Your task to perform on an android device: open app "Instagram" (install if not already installed) and enter user name: "nobler@yahoo.com" and password: "foraging" Image 0: 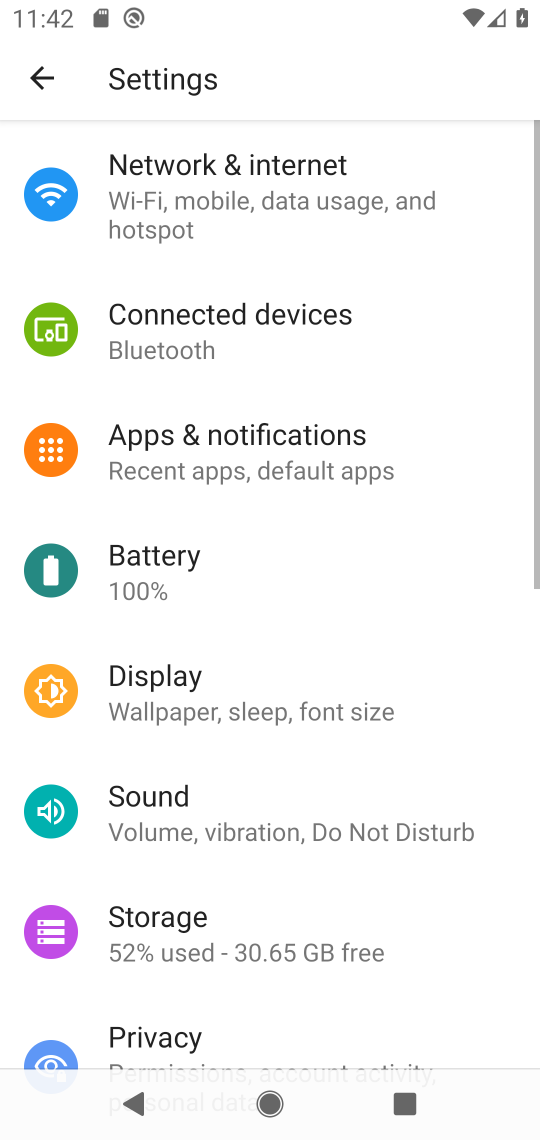
Step 0: click (261, 971)
Your task to perform on an android device: open app "Instagram" (install if not already installed) and enter user name: "nobler@yahoo.com" and password: "foraging" Image 1: 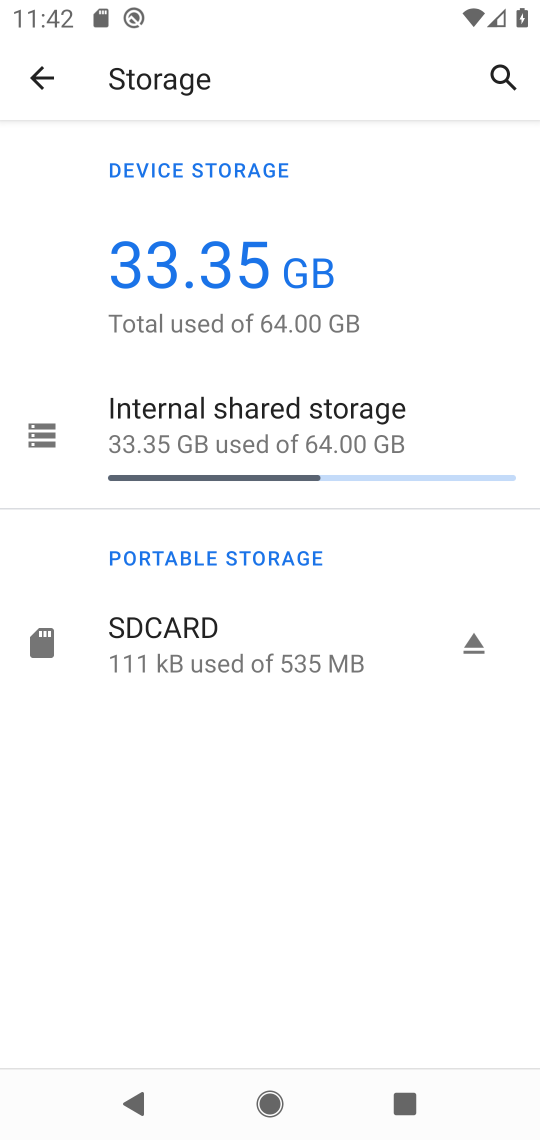
Step 1: press home button
Your task to perform on an android device: open app "Instagram" (install if not already installed) and enter user name: "nobler@yahoo.com" and password: "foraging" Image 2: 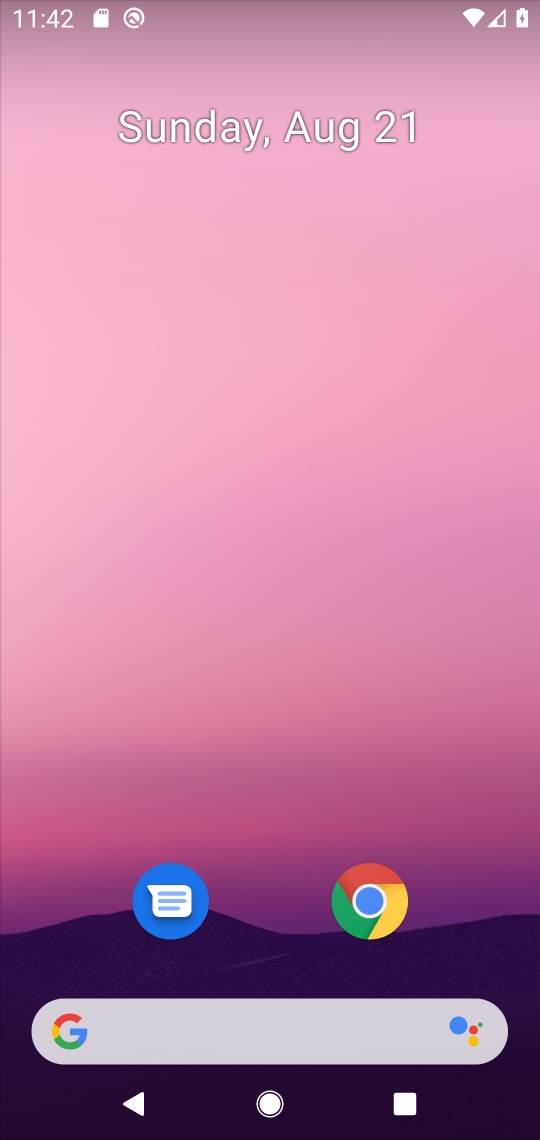
Step 2: drag from (250, 973) to (443, 47)
Your task to perform on an android device: open app "Instagram" (install if not already installed) and enter user name: "nobler@yahoo.com" and password: "foraging" Image 3: 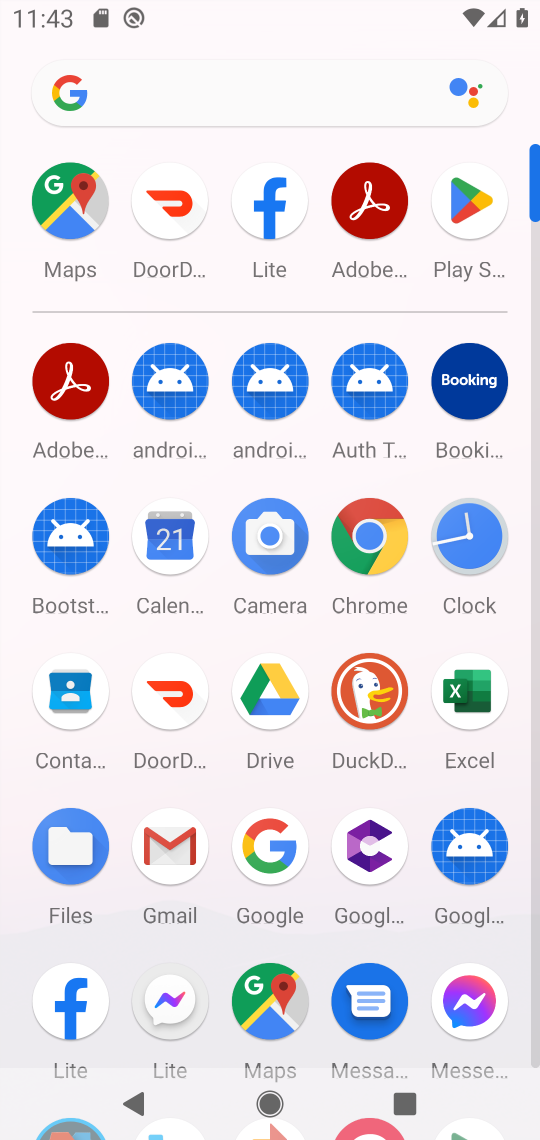
Step 3: click (490, 238)
Your task to perform on an android device: open app "Instagram" (install if not already installed) and enter user name: "nobler@yahoo.com" and password: "foraging" Image 4: 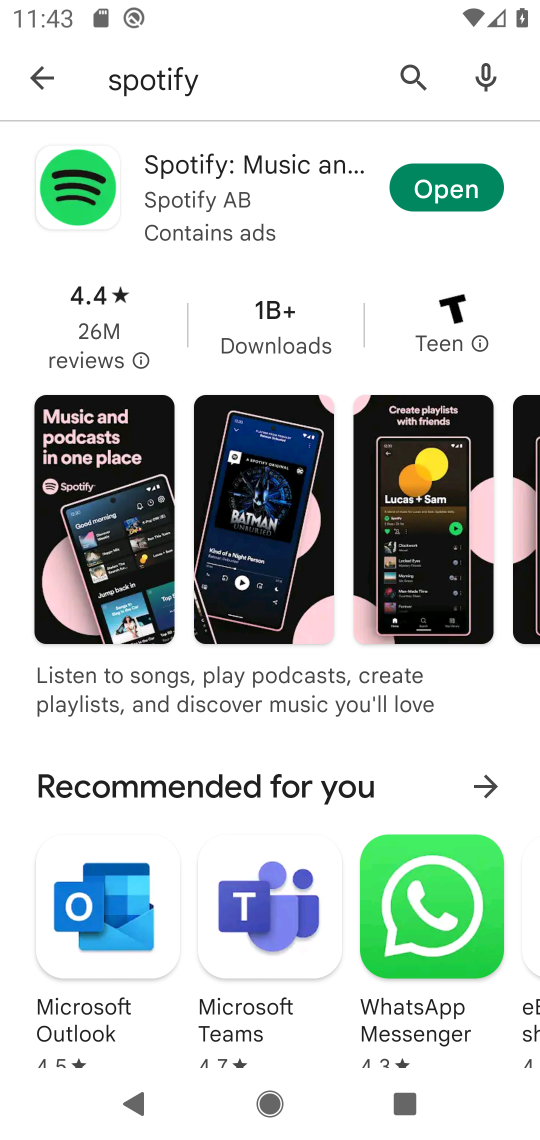
Step 4: click (418, 96)
Your task to perform on an android device: open app "Instagram" (install if not already installed) and enter user name: "nobler@yahoo.com" and password: "foraging" Image 5: 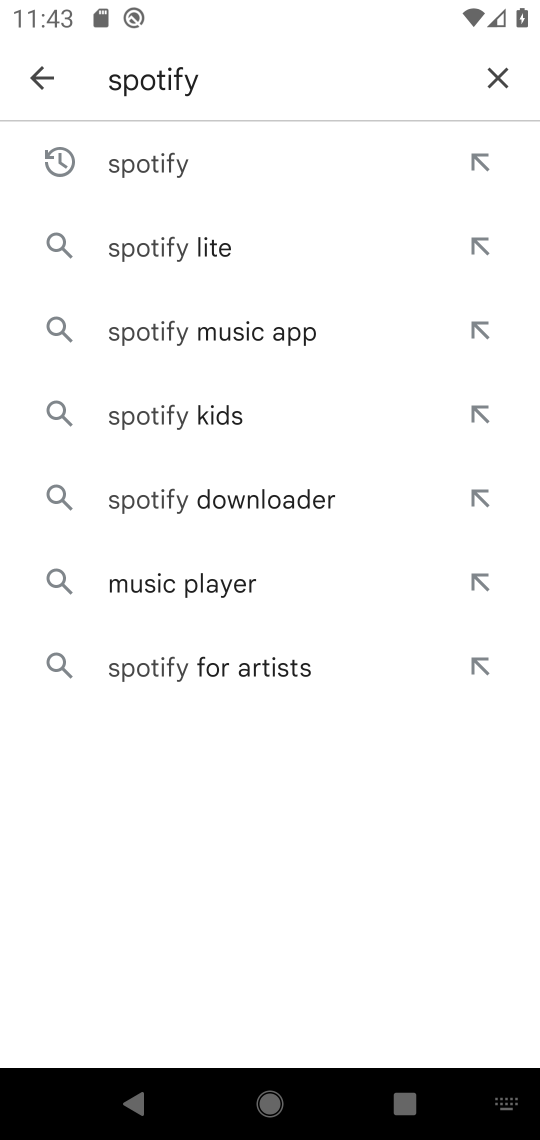
Step 5: click (485, 97)
Your task to perform on an android device: open app "Instagram" (install if not already installed) and enter user name: "nobler@yahoo.com" and password: "foraging" Image 6: 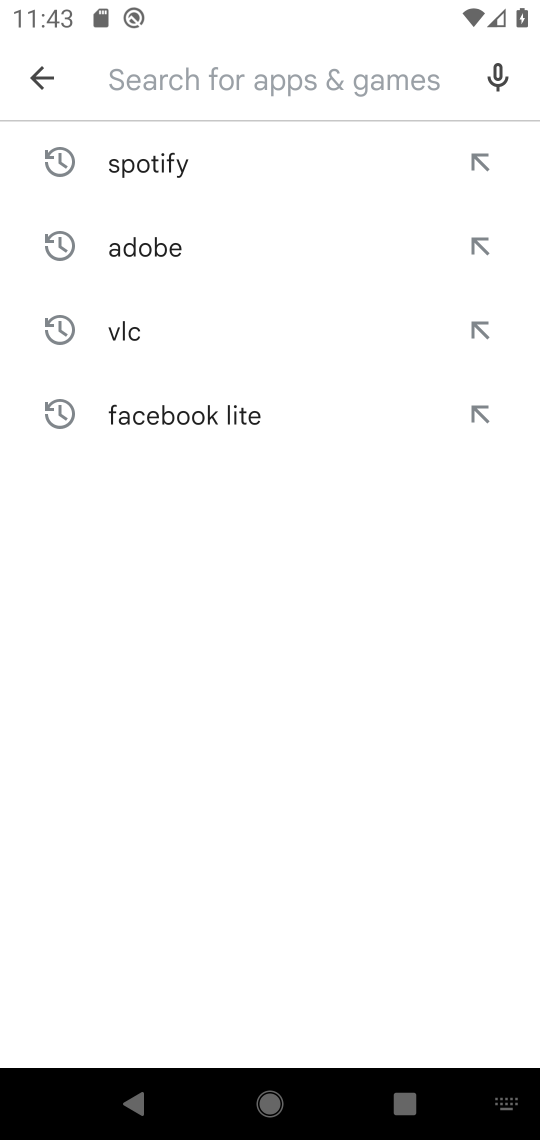
Step 6: type "instagram"
Your task to perform on an android device: open app "Instagram" (install if not already installed) and enter user name: "nobler@yahoo.com" and password: "foraging" Image 7: 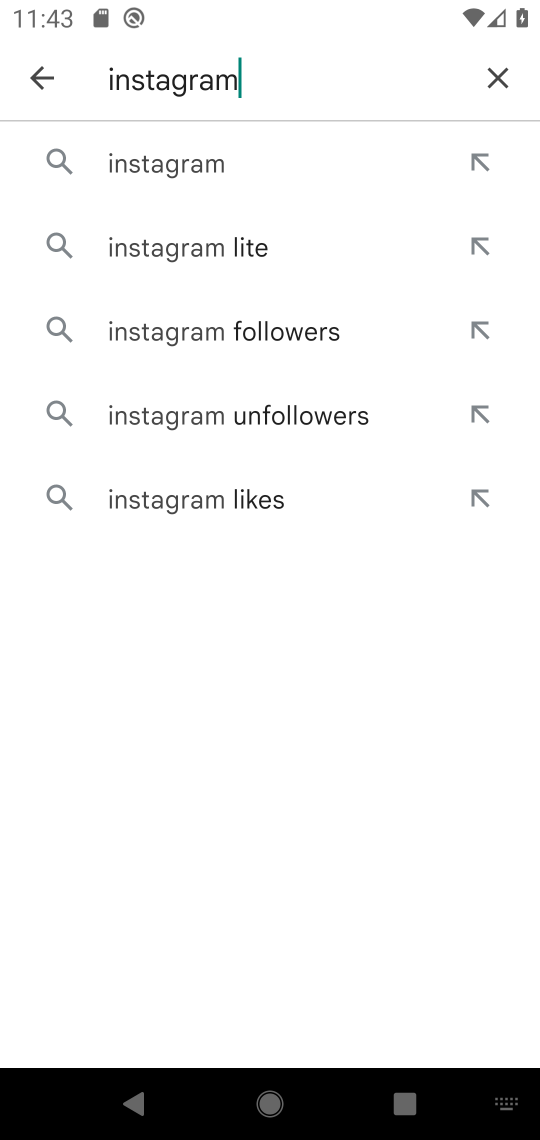
Step 7: click (182, 145)
Your task to perform on an android device: open app "Instagram" (install if not already installed) and enter user name: "nobler@yahoo.com" and password: "foraging" Image 8: 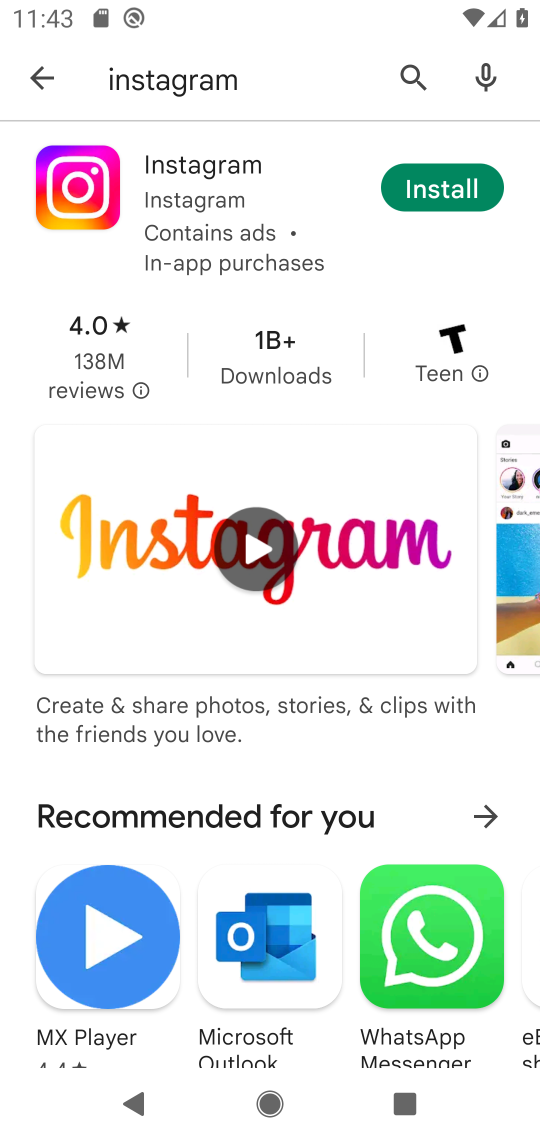
Step 8: click (412, 174)
Your task to perform on an android device: open app "Instagram" (install if not already installed) and enter user name: "nobler@yahoo.com" and password: "foraging" Image 9: 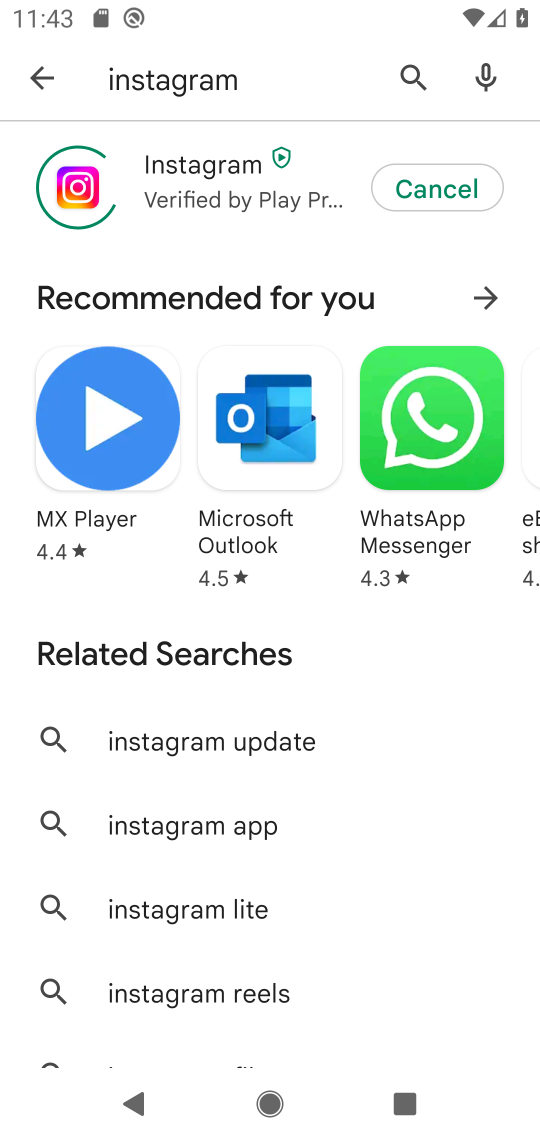
Step 9: task complete